Your task to perform on an android device: What is the recent news? Image 0: 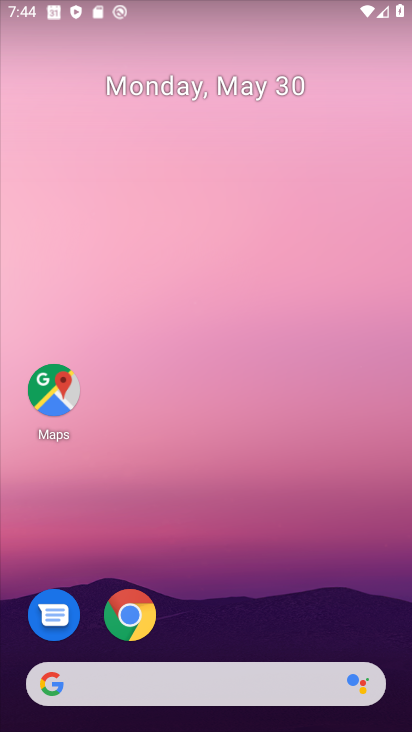
Step 0: click (164, 687)
Your task to perform on an android device: What is the recent news? Image 1: 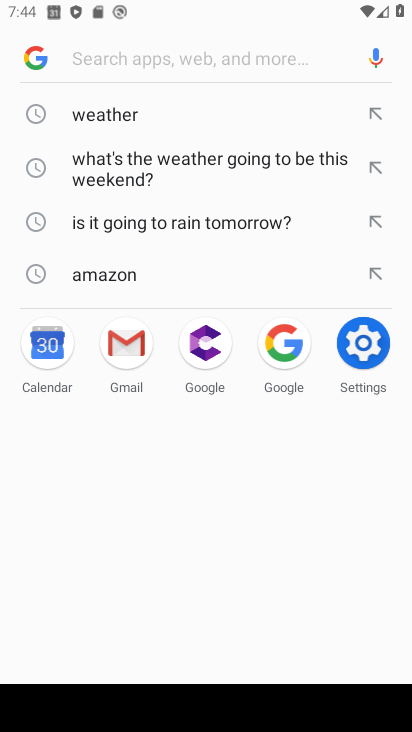
Step 1: type "recent news"
Your task to perform on an android device: What is the recent news? Image 2: 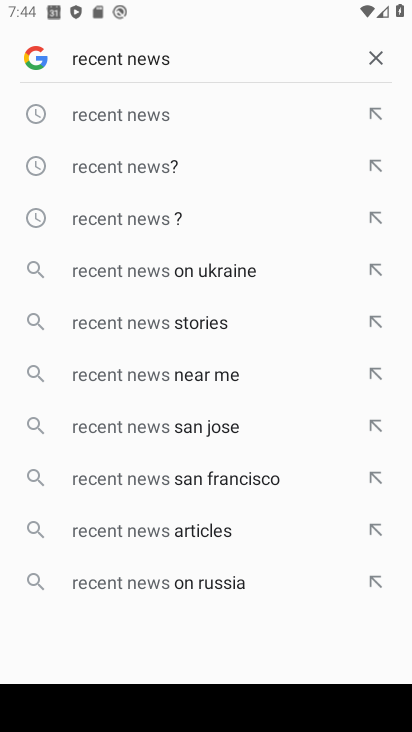
Step 2: click (121, 107)
Your task to perform on an android device: What is the recent news? Image 3: 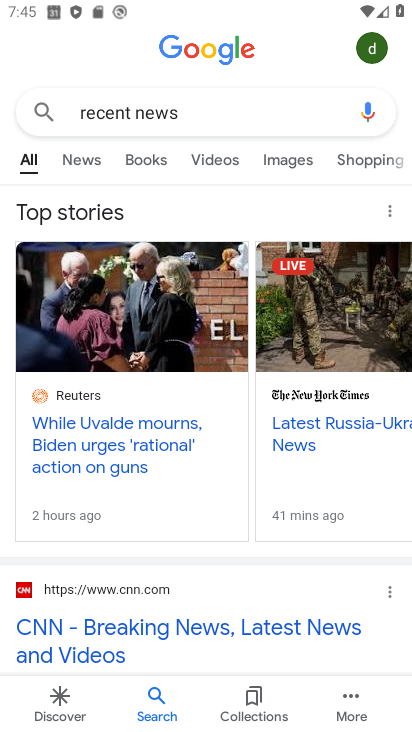
Step 3: task complete